Your task to perform on an android device: Search for hotels in Seattle Image 0: 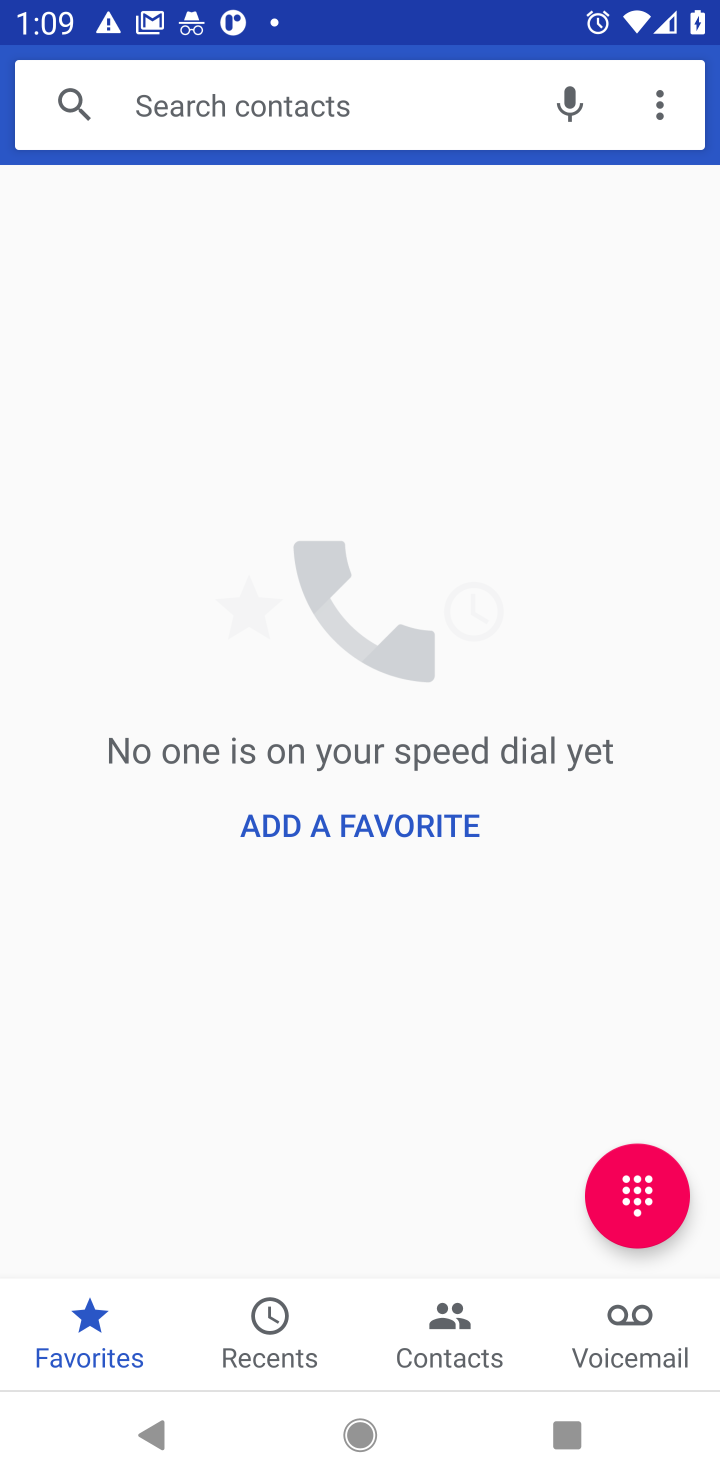
Step 0: press home button
Your task to perform on an android device: Search for hotels in Seattle Image 1: 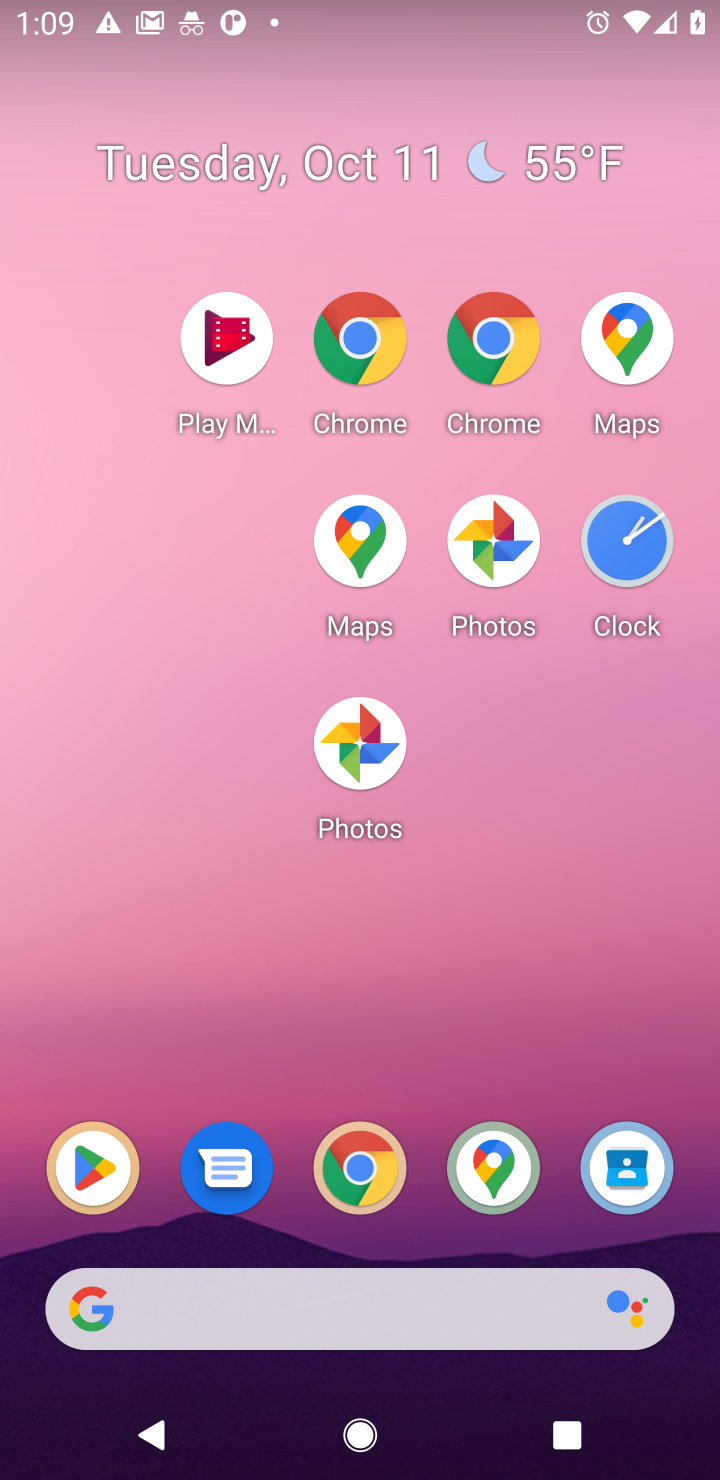
Step 1: drag from (417, 1081) to (487, 282)
Your task to perform on an android device: Search for hotels in Seattle Image 2: 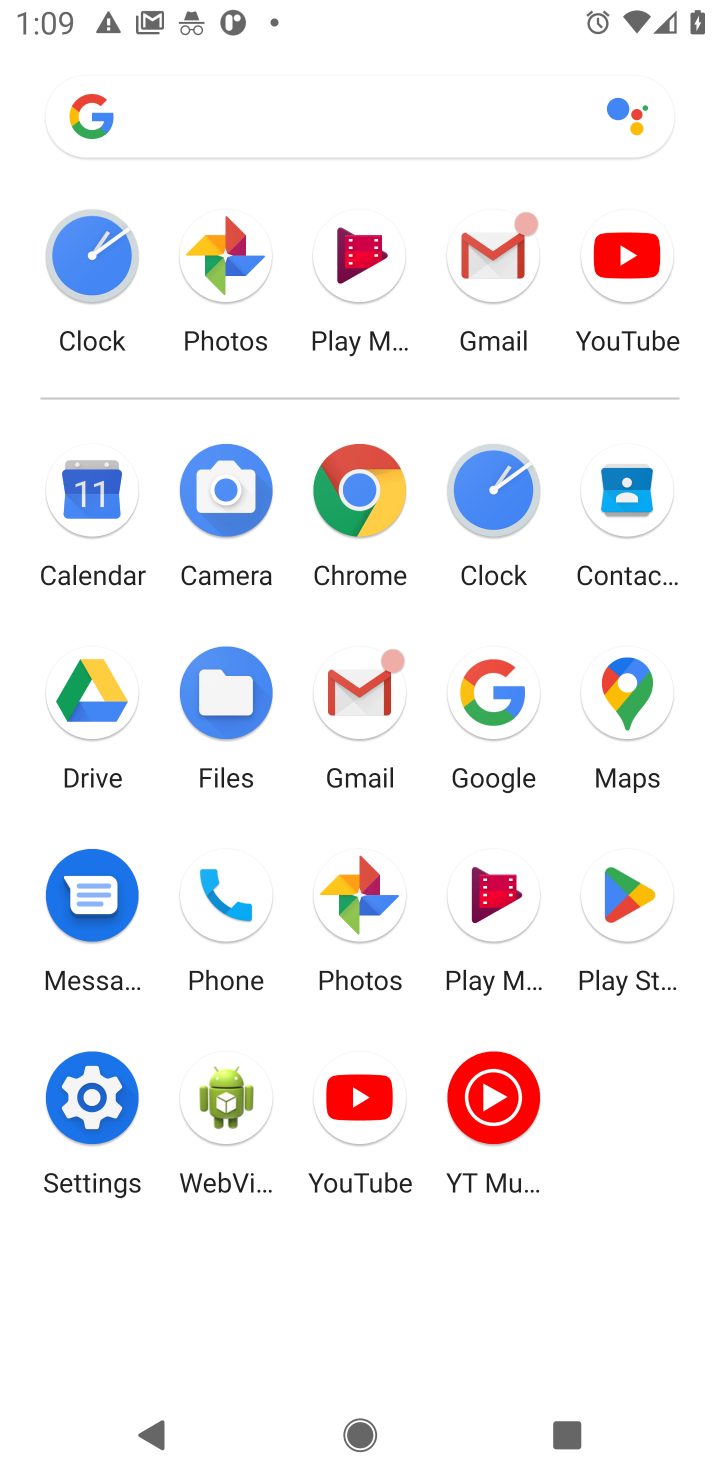
Step 2: click (491, 724)
Your task to perform on an android device: Search for hotels in Seattle Image 3: 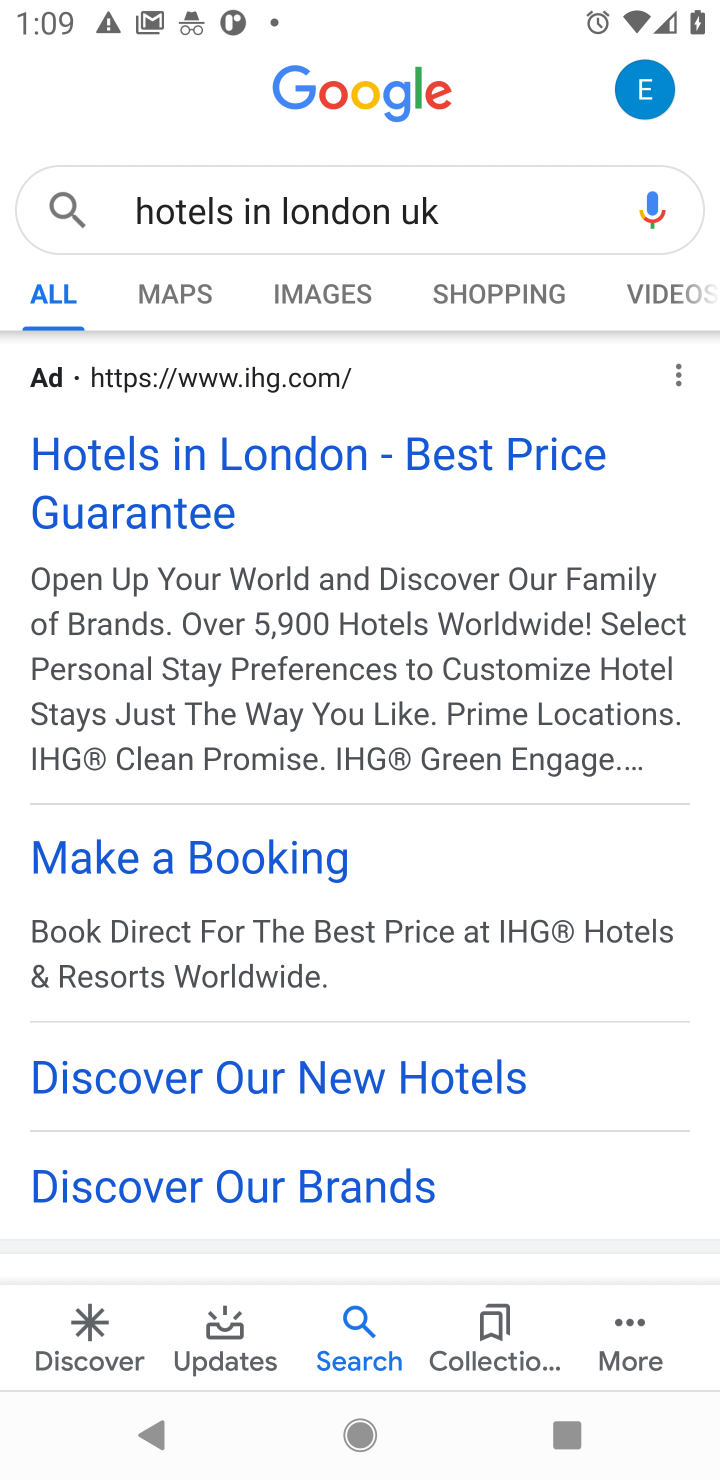
Step 3: click (532, 215)
Your task to perform on an android device: Search for hotels in Seattle Image 4: 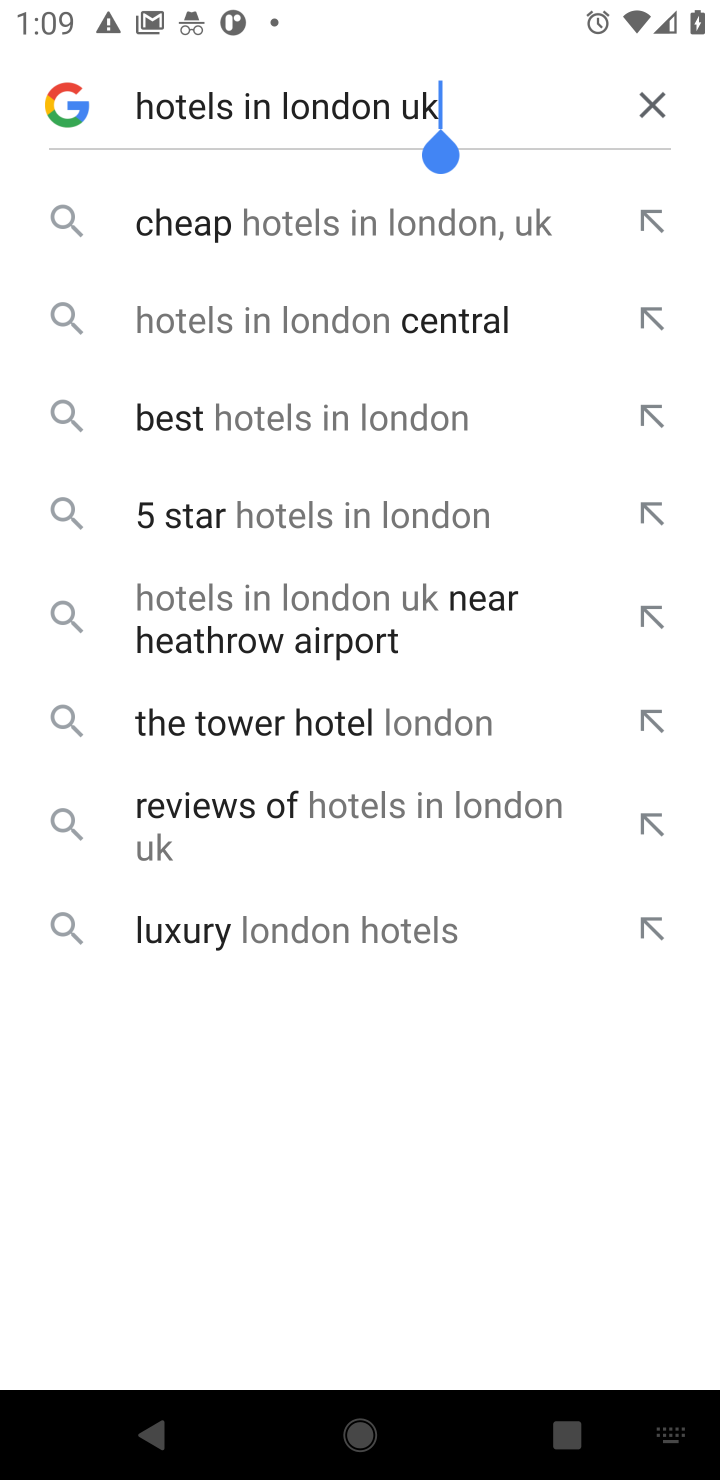
Step 4: click (646, 110)
Your task to perform on an android device: Search for hotels in Seattle Image 5: 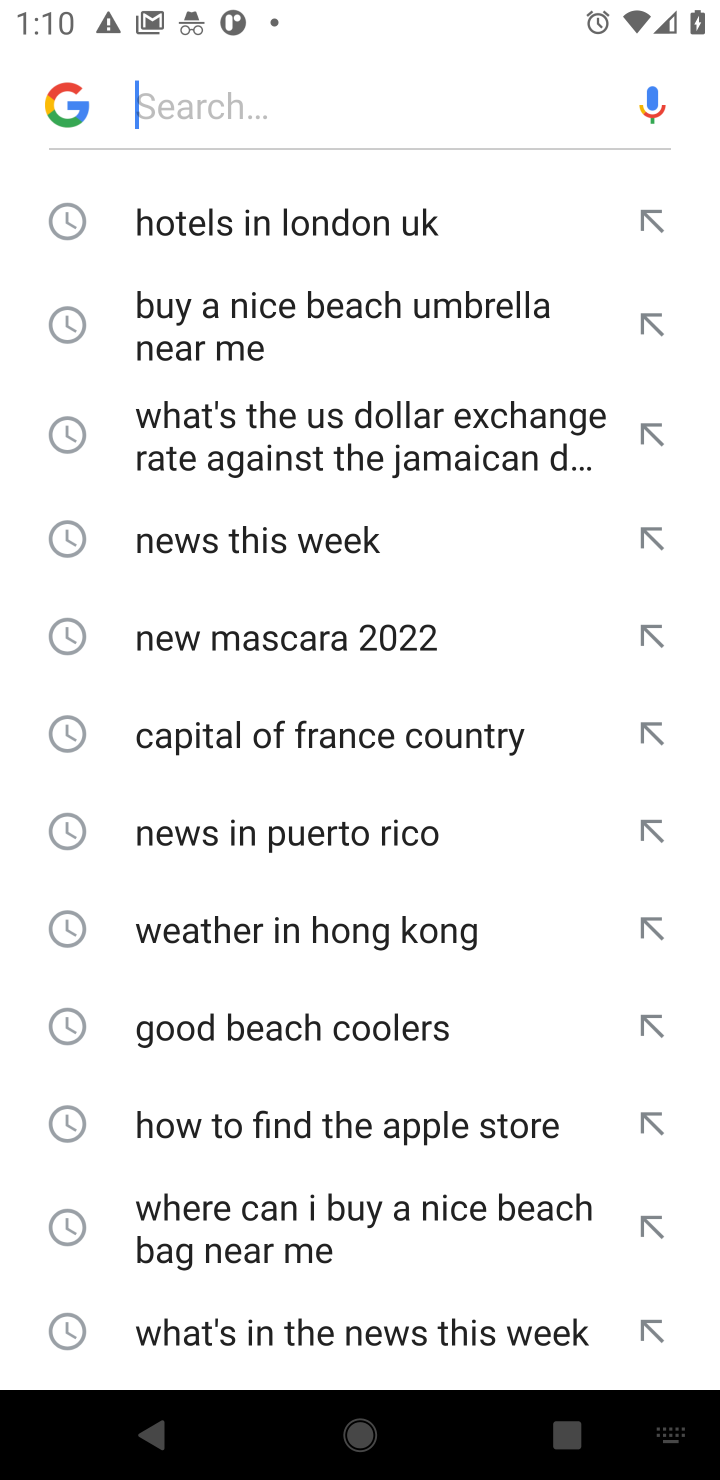
Step 5: type "hotels in Seattle"
Your task to perform on an android device: Search for hotels in Seattle Image 6: 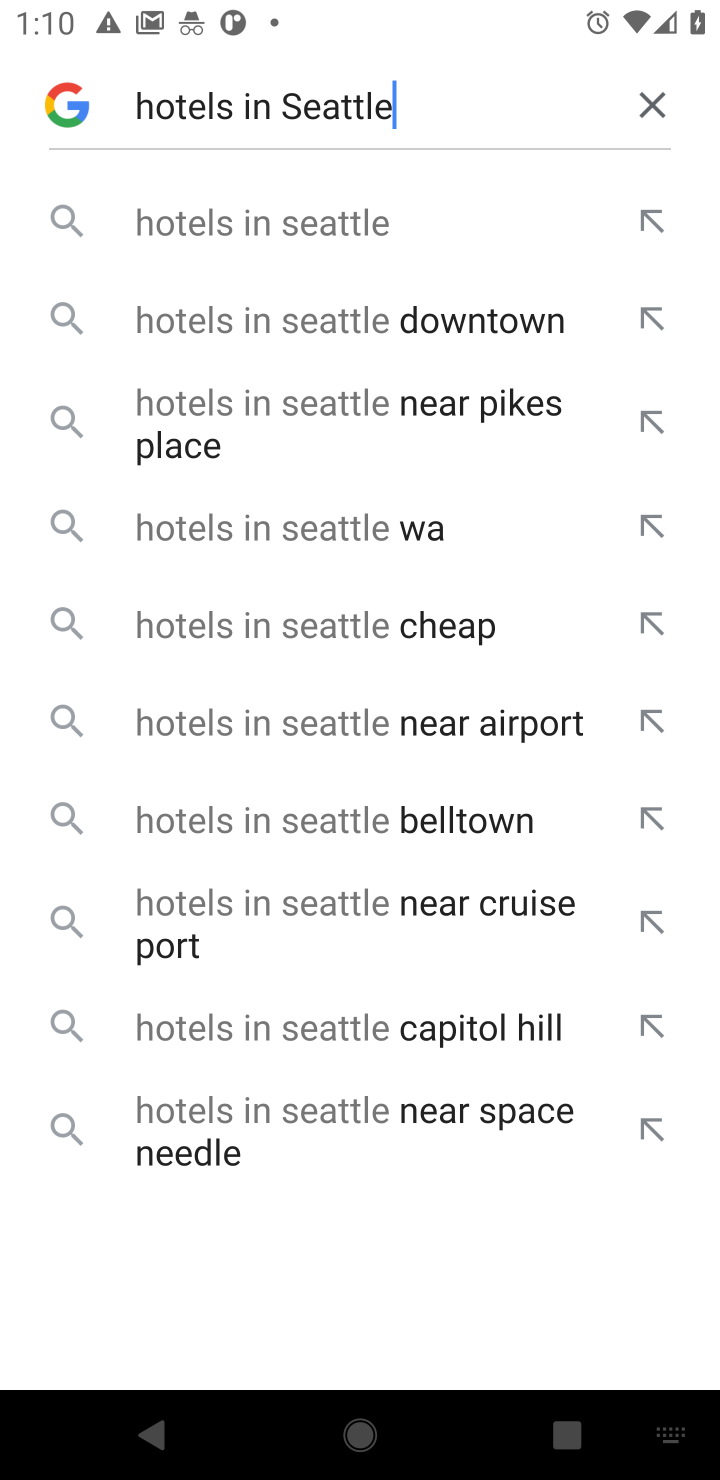
Step 6: click (349, 211)
Your task to perform on an android device: Search for hotels in Seattle Image 7: 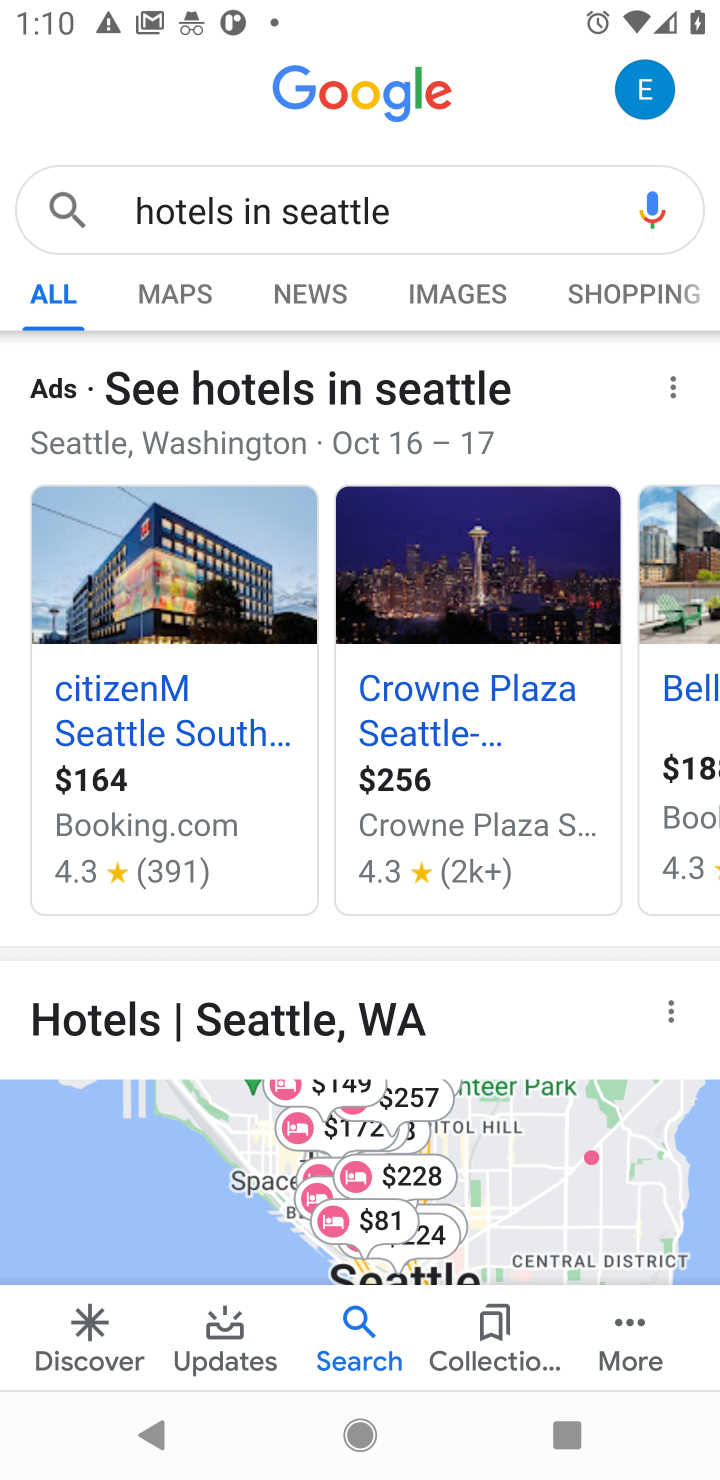
Step 7: task complete